Your task to perform on an android device: manage bookmarks in the chrome app Image 0: 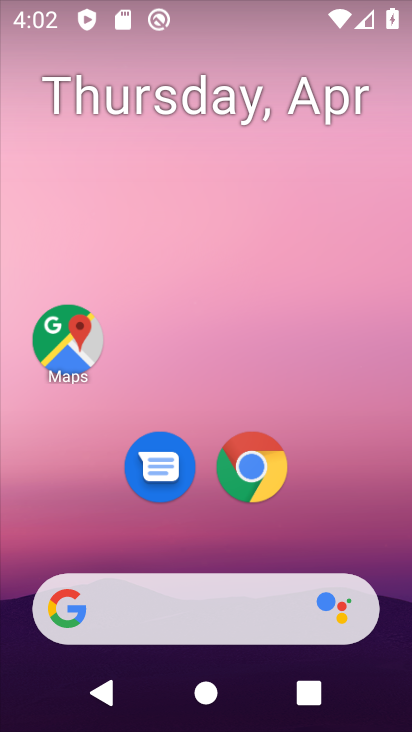
Step 0: click (262, 457)
Your task to perform on an android device: manage bookmarks in the chrome app Image 1: 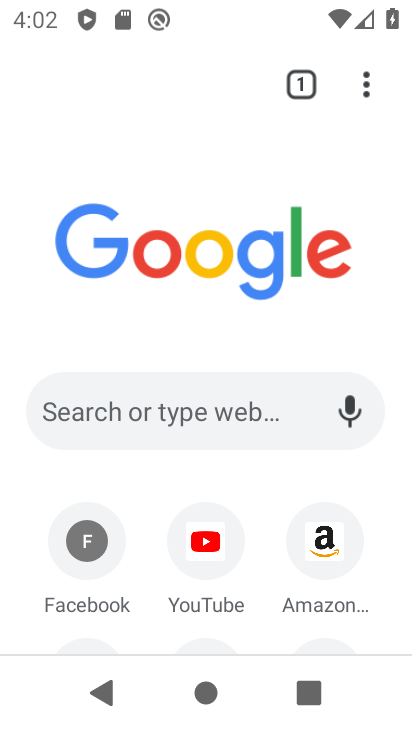
Step 1: click (365, 83)
Your task to perform on an android device: manage bookmarks in the chrome app Image 2: 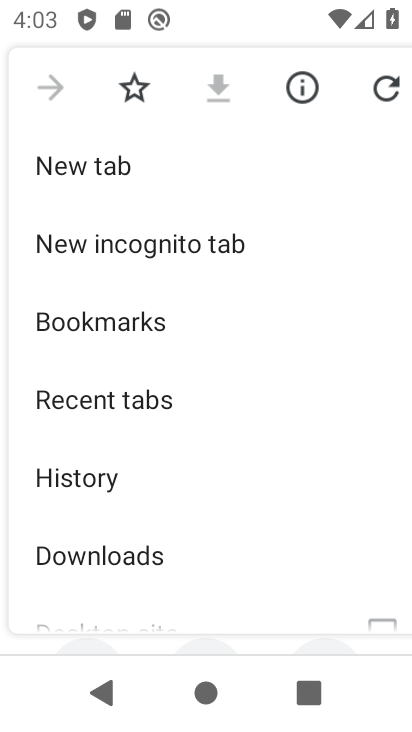
Step 2: click (145, 336)
Your task to perform on an android device: manage bookmarks in the chrome app Image 3: 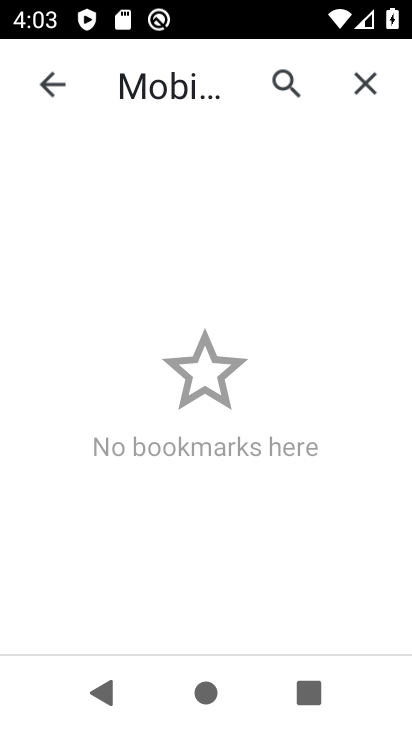
Step 3: task complete